Your task to perform on an android device: uninstall "The Home Depot" Image 0: 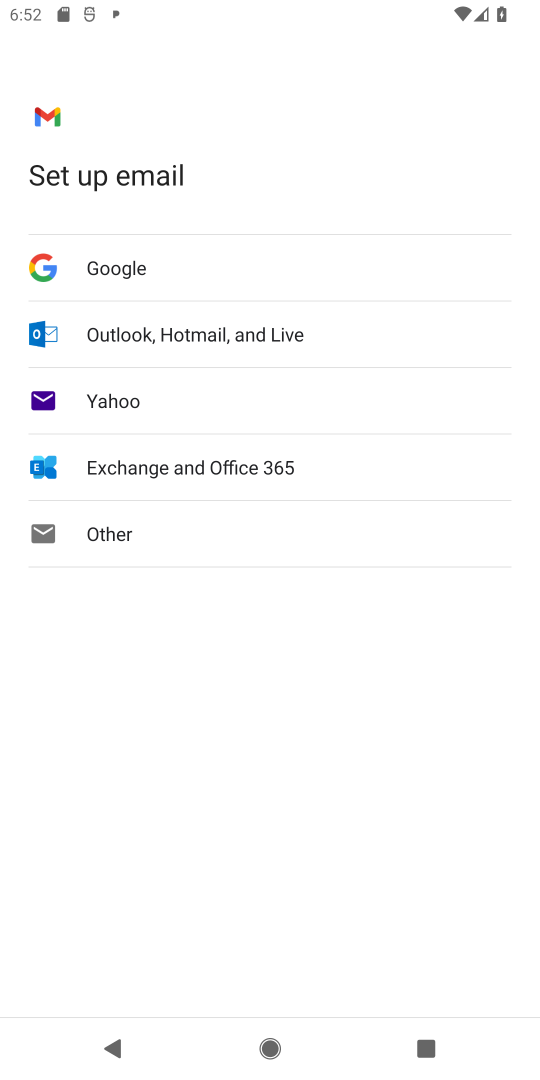
Step 0: press home button
Your task to perform on an android device: uninstall "The Home Depot" Image 1: 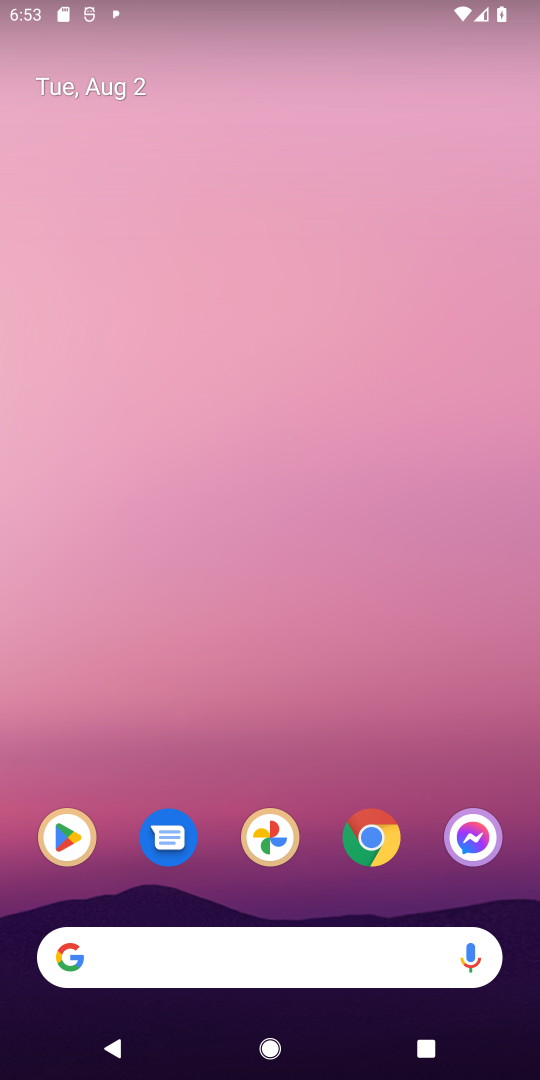
Step 1: click (65, 851)
Your task to perform on an android device: uninstall "The Home Depot" Image 2: 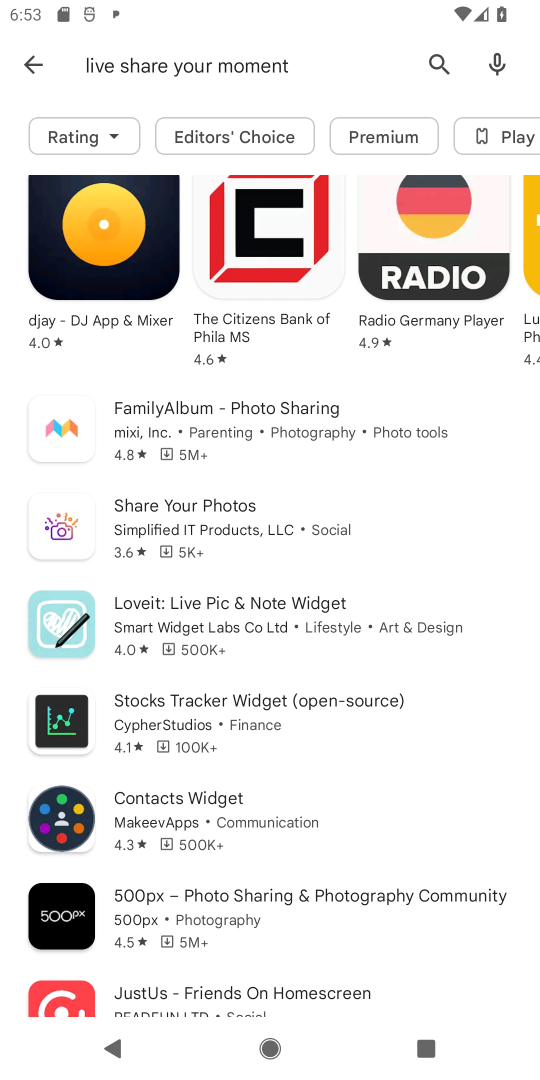
Step 2: click (441, 67)
Your task to perform on an android device: uninstall "The Home Depot" Image 3: 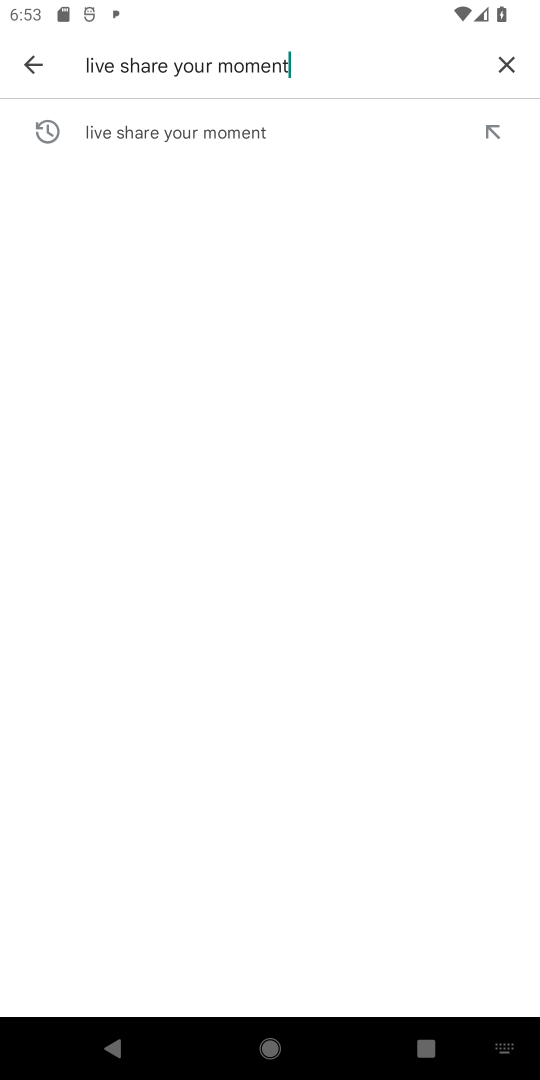
Step 3: click (507, 68)
Your task to perform on an android device: uninstall "The Home Depot" Image 4: 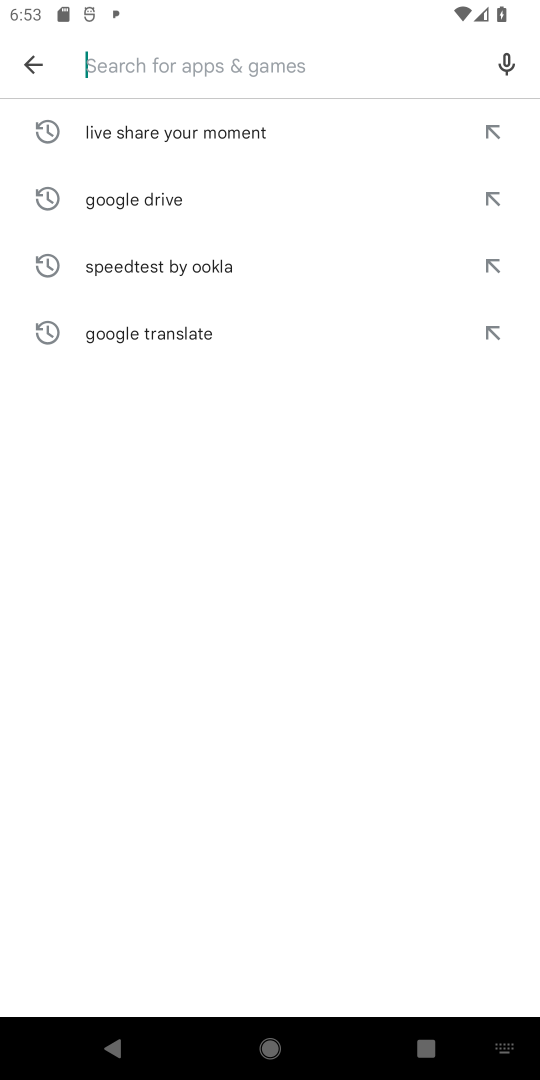
Step 4: type "The Home Depot"
Your task to perform on an android device: uninstall "The Home Depot" Image 5: 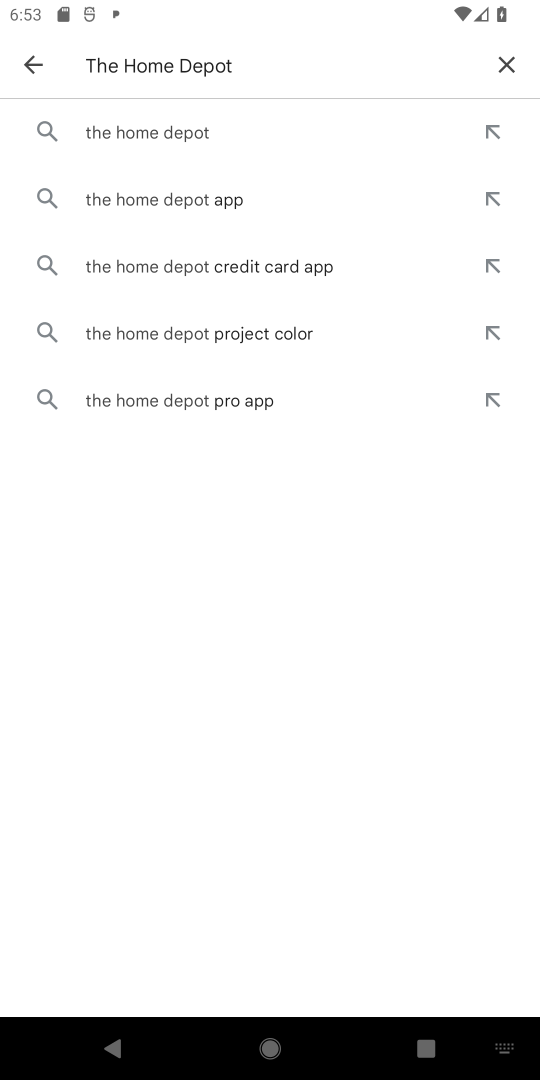
Step 5: click (140, 141)
Your task to perform on an android device: uninstall "The Home Depot" Image 6: 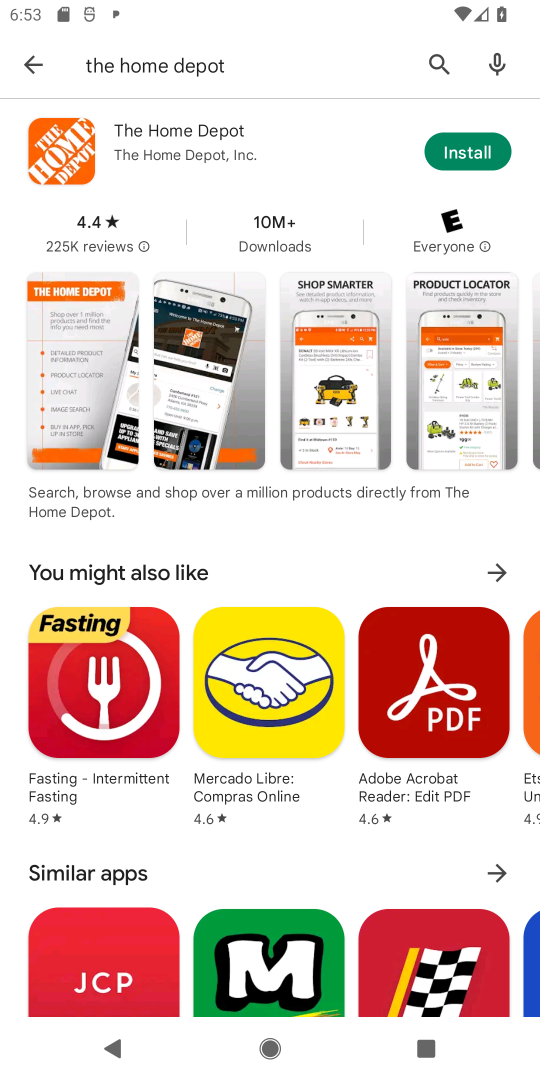
Step 6: task complete